Your task to perform on an android device: uninstall "Google Home" Image 0: 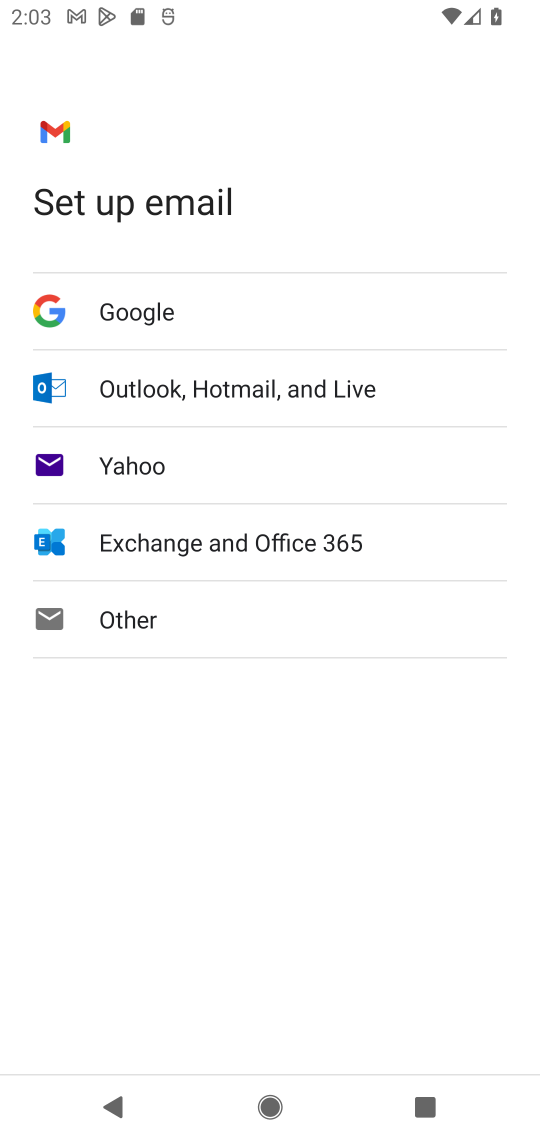
Step 0: press home button
Your task to perform on an android device: uninstall "Google Home" Image 1: 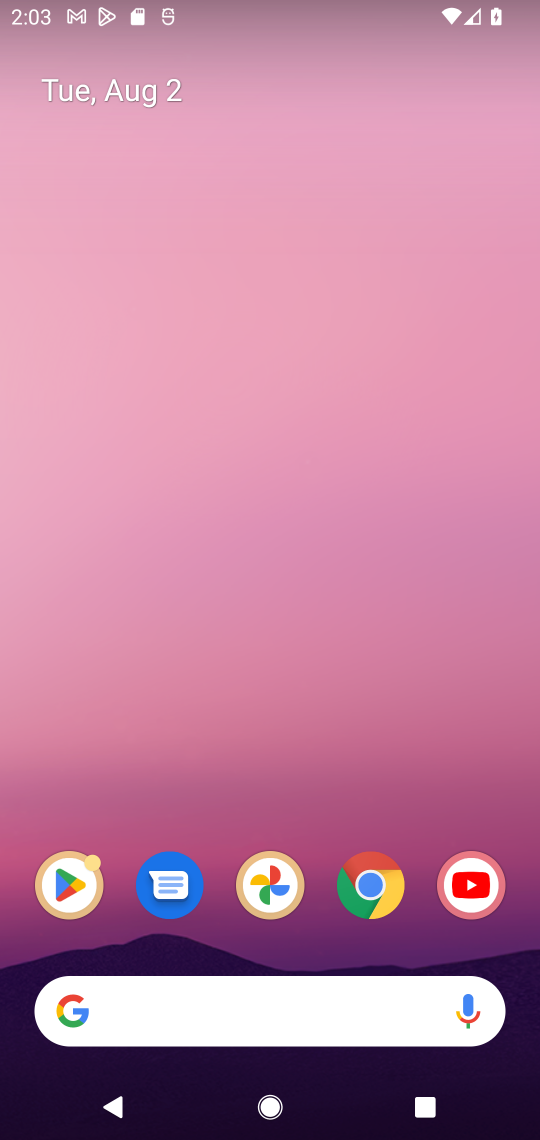
Step 1: click (68, 873)
Your task to perform on an android device: uninstall "Google Home" Image 2: 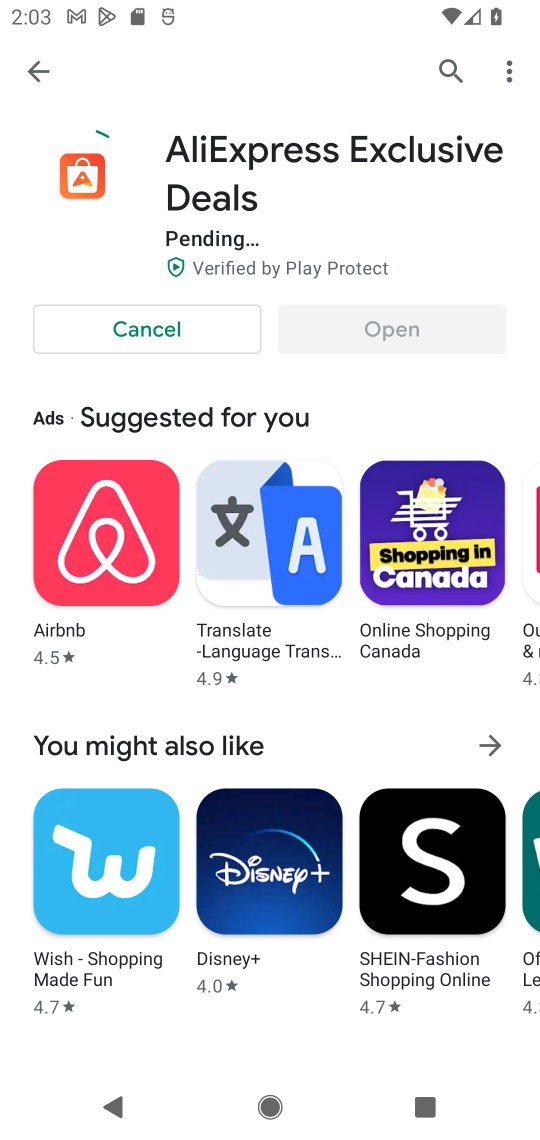
Step 2: click (440, 82)
Your task to perform on an android device: uninstall "Google Home" Image 3: 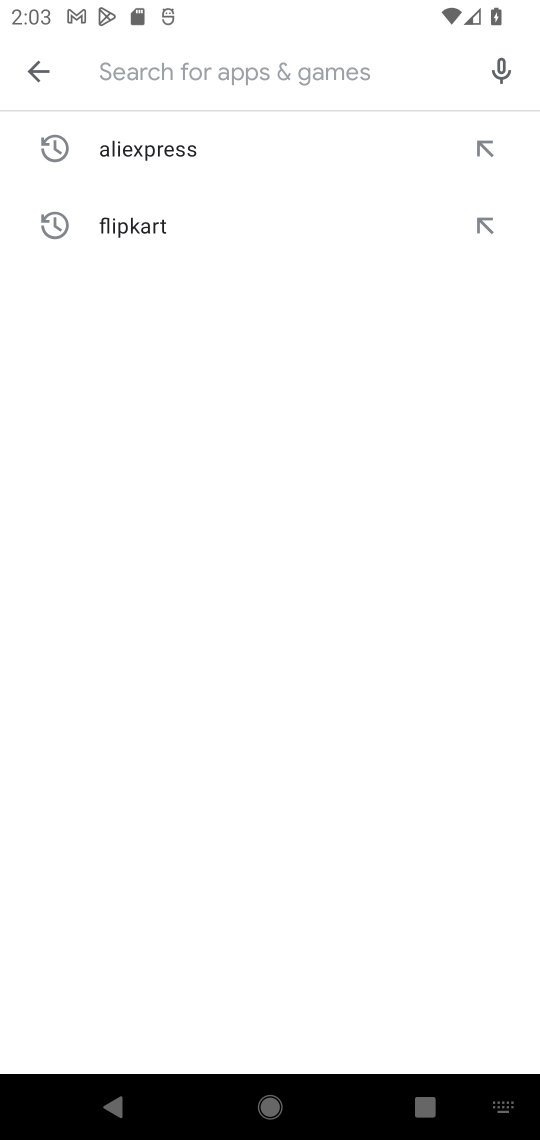
Step 3: type "google home"
Your task to perform on an android device: uninstall "Google Home" Image 4: 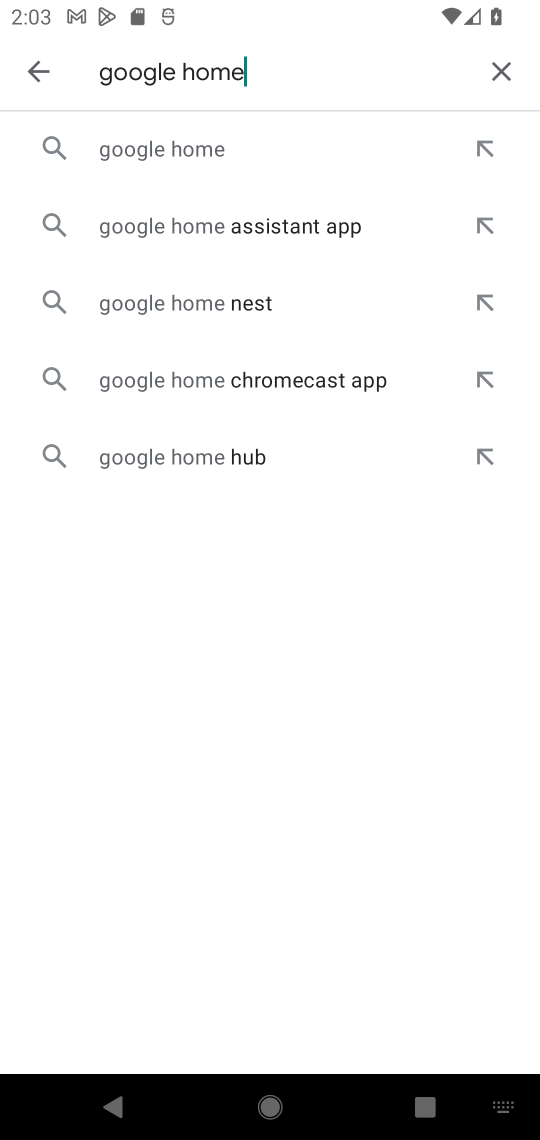
Step 4: click (284, 124)
Your task to perform on an android device: uninstall "Google Home" Image 5: 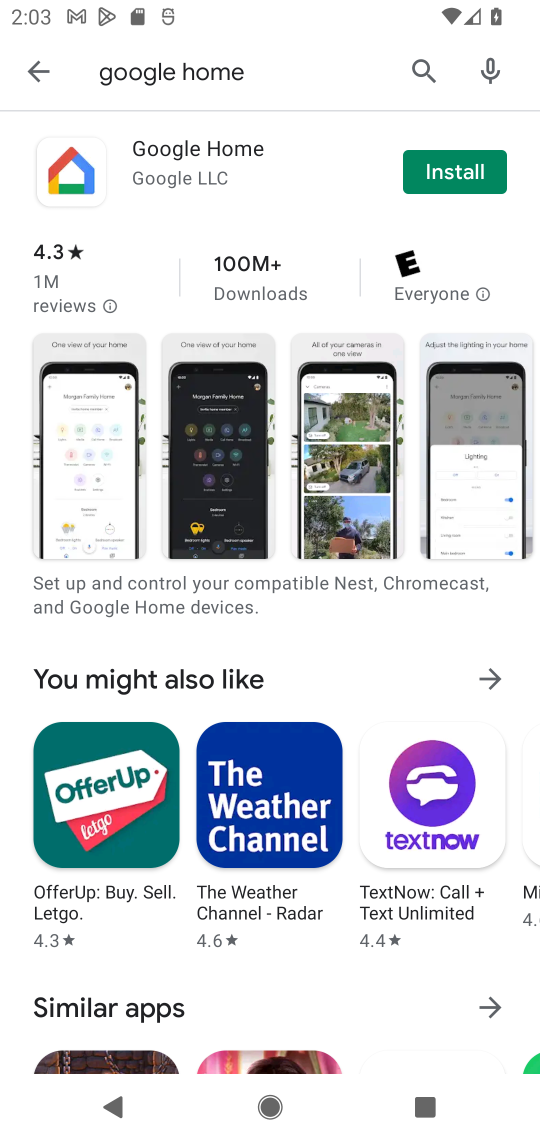
Step 5: task complete